Your task to perform on an android device: change timer sound Image 0: 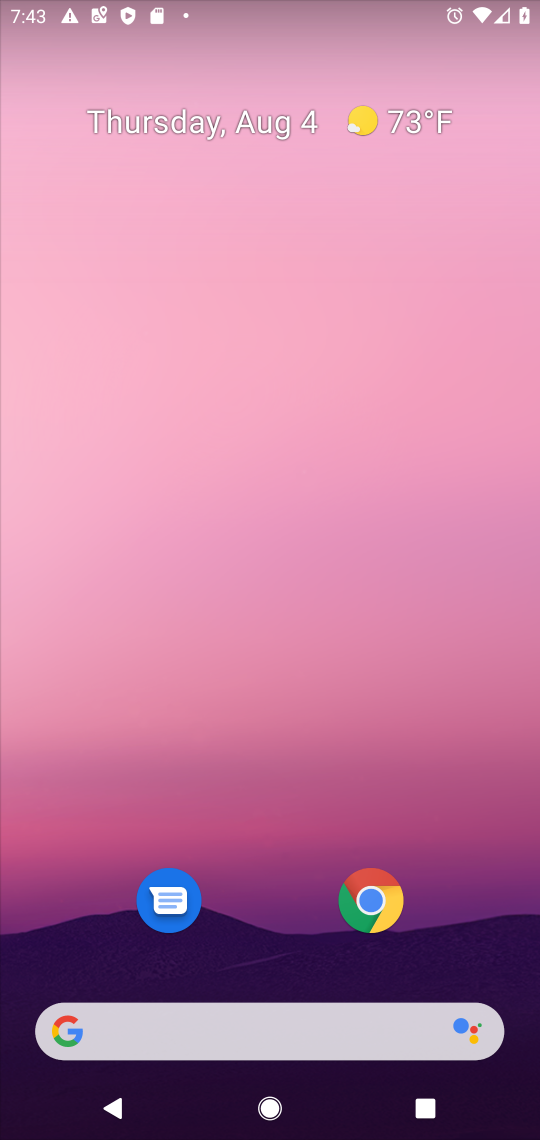
Step 0: drag from (233, 1037) to (303, 157)
Your task to perform on an android device: change timer sound Image 1: 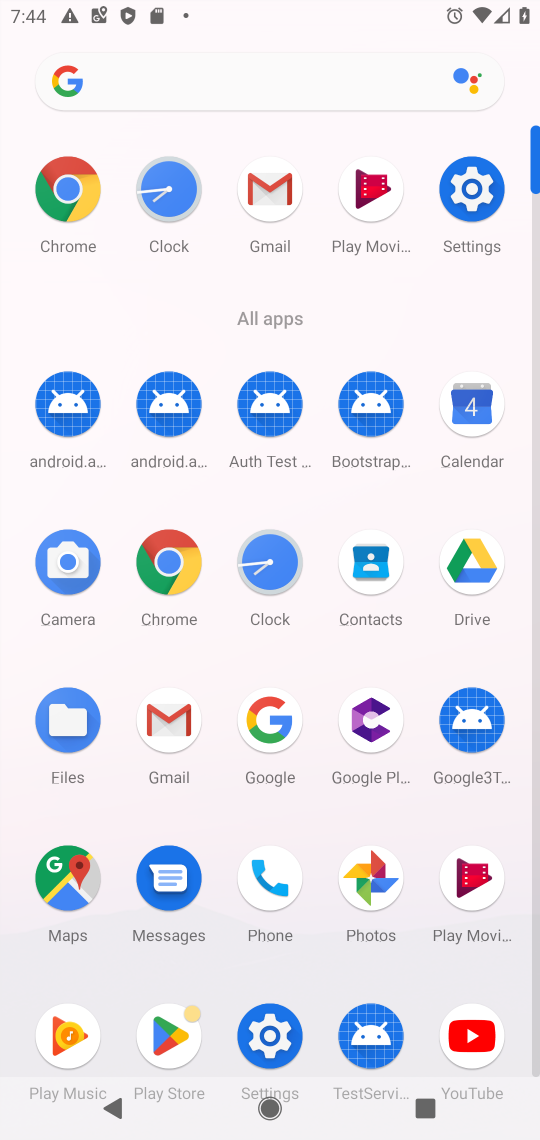
Step 1: click (267, 560)
Your task to perform on an android device: change timer sound Image 2: 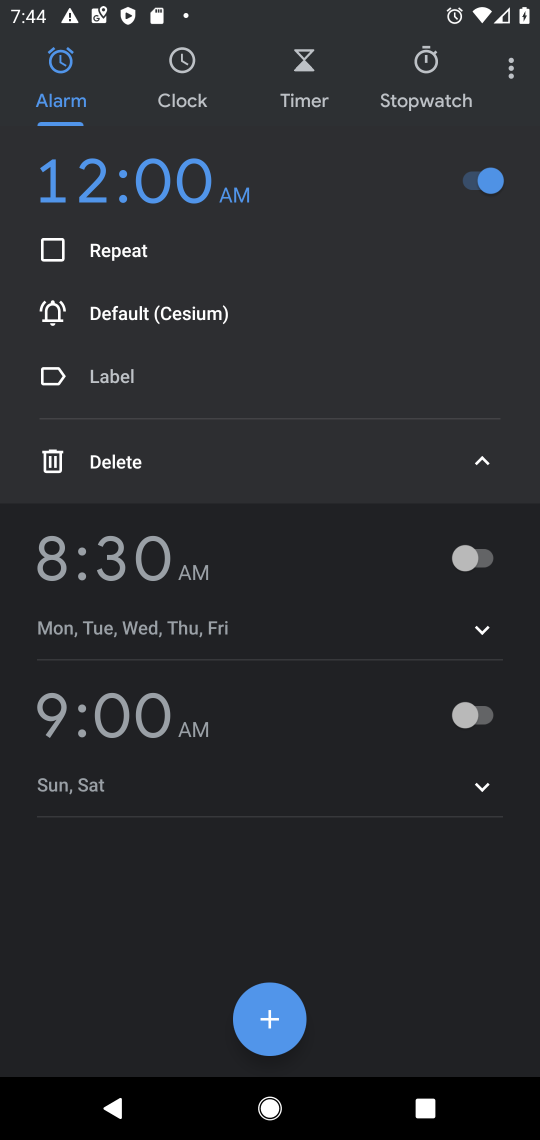
Step 2: click (520, 76)
Your task to perform on an android device: change timer sound Image 3: 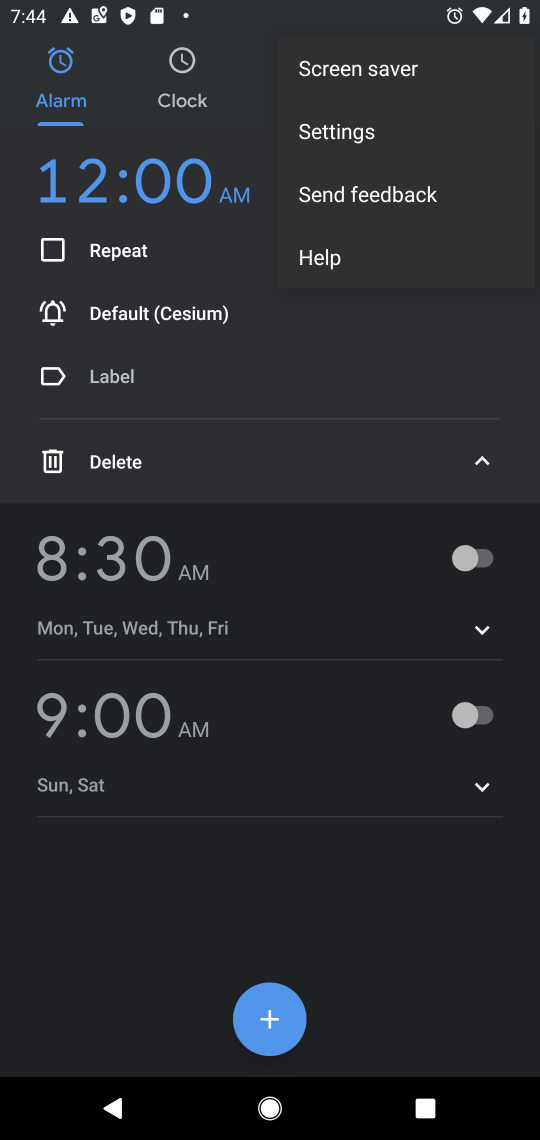
Step 3: click (362, 125)
Your task to perform on an android device: change timer sound Image 4: 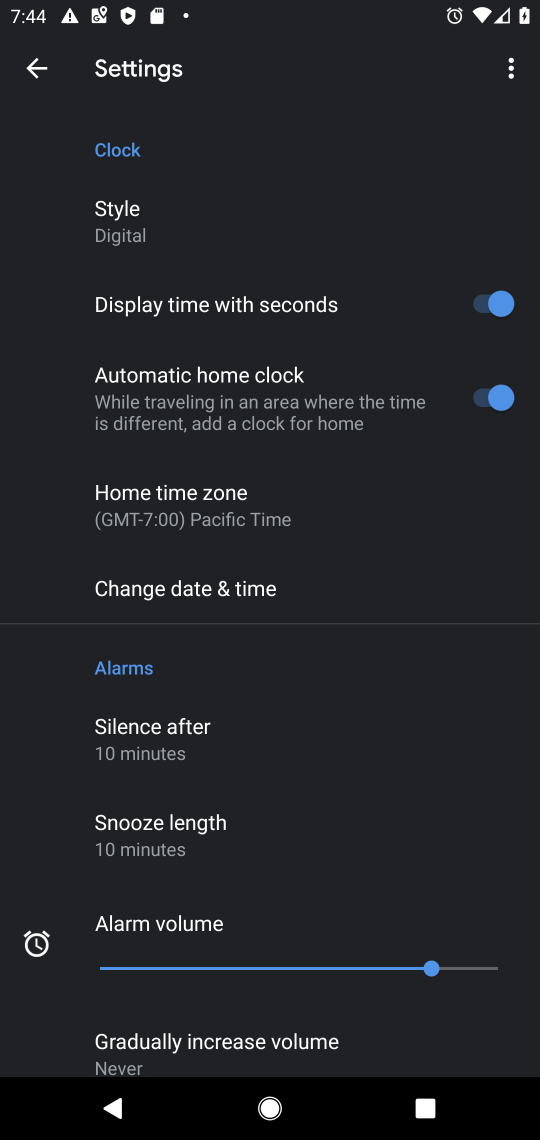
Step 4: drag from (233, 831) to (309, 422)
Your task to perform on an android device: change timer sound Image 5: 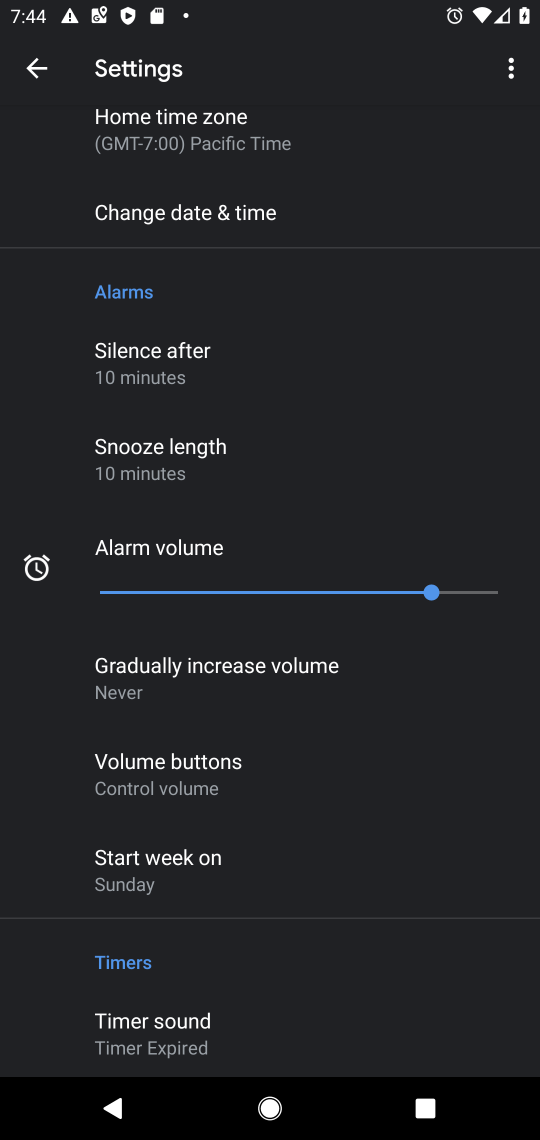
Step 5: drag from (249, 842) to (250, 583)
Your task to perform on an android device: change timer sound Image 6: 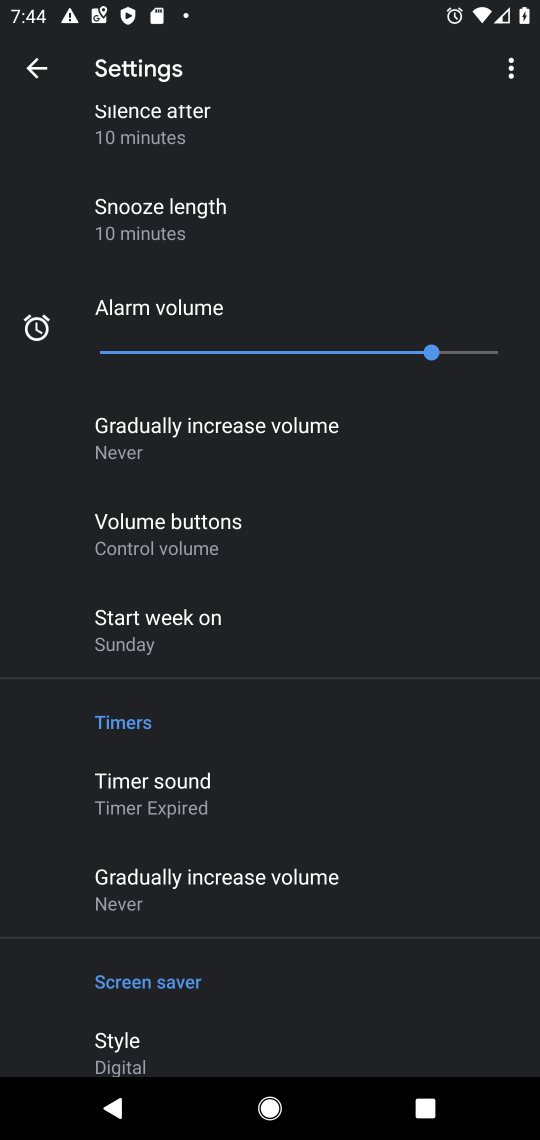
Step 6: click (155, 809)
Your task to perform on an android device: change timer sound Image 7: 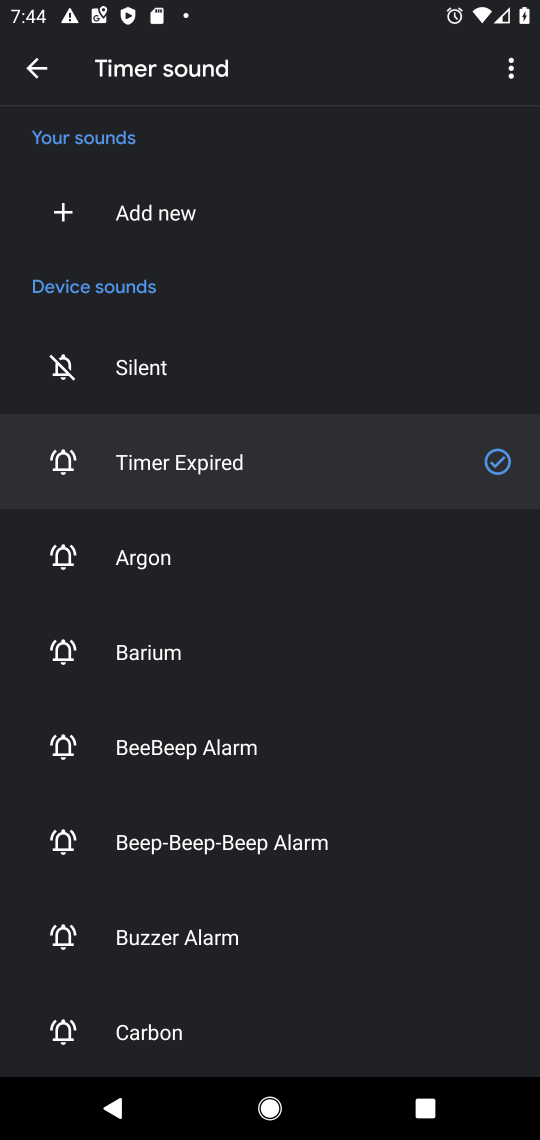
Step 7: drag from (161, 835) to (301, 482)
Your task to perform on an android device: change timer sound Image 8: 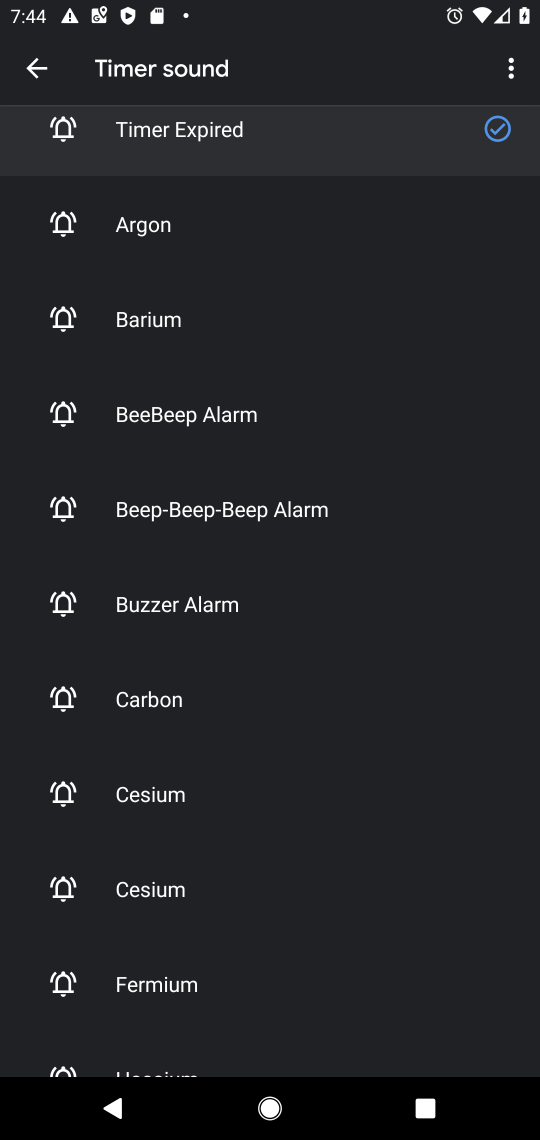
Step 8: drag from (167, 733) to (263, 446)
Your task to perform on an android device: change timer sound Image 9: 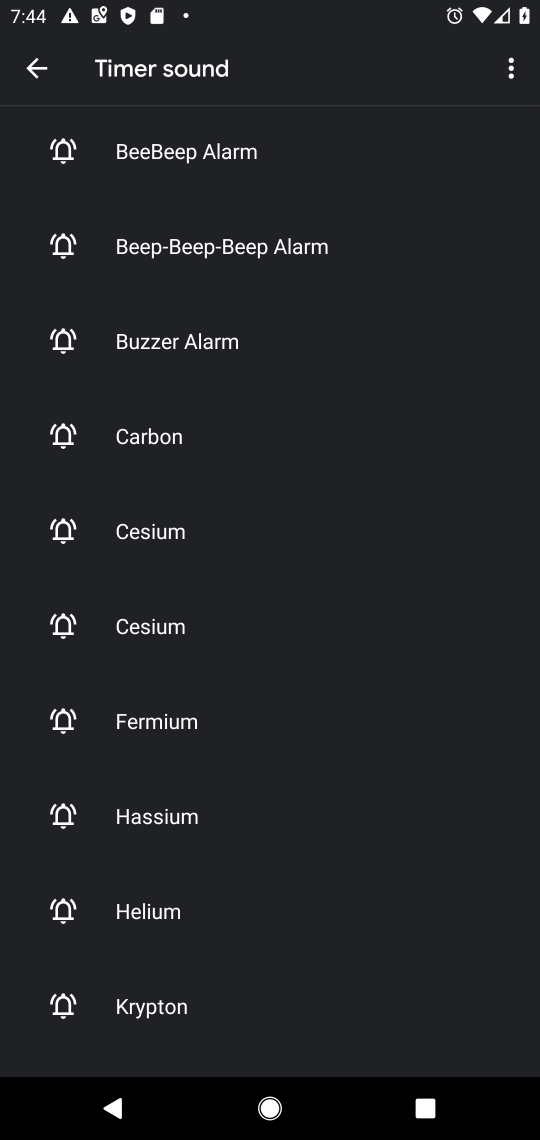
Step 9: click (161, 632)
Your task to perform on an android device: change timer sound Image 10: 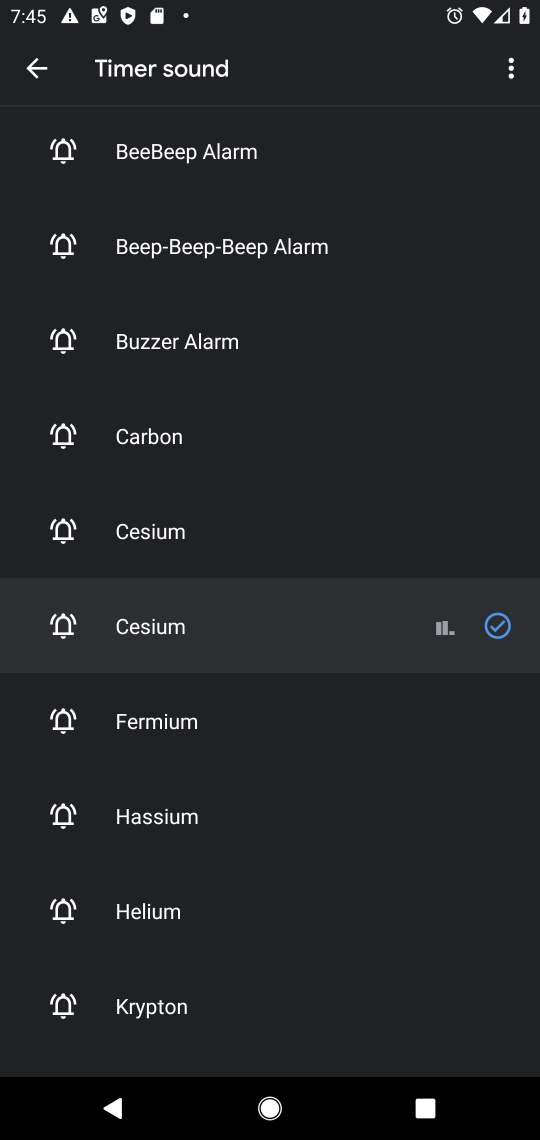
Step 10: task complete